Your task to perform on an android device: turn off airplane mode Image 0: 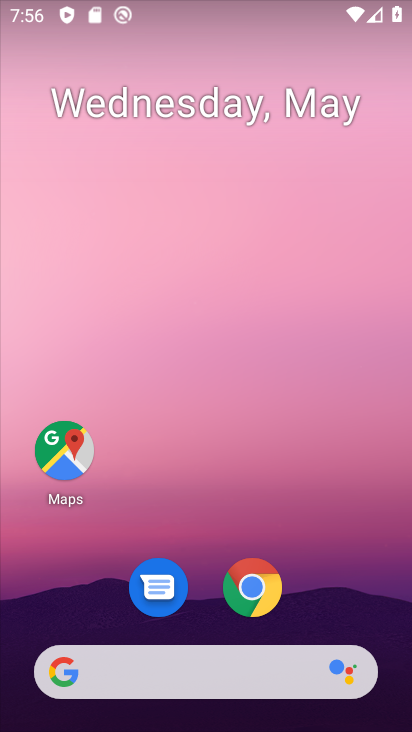
Step 0: drag from (201, 706) to (140, 51)
Your task to perform on an android device: turn off airplane mode Image 1: 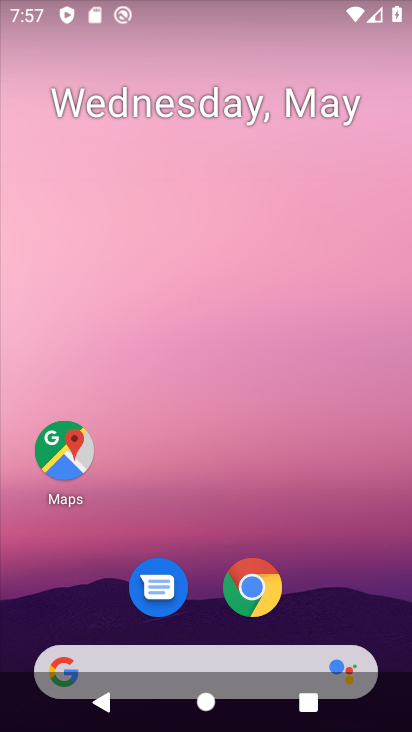
Step 1: drag from (227, 576) to (173, 0)
Your task to perform on an android device: turn off airplane mode Image 2: 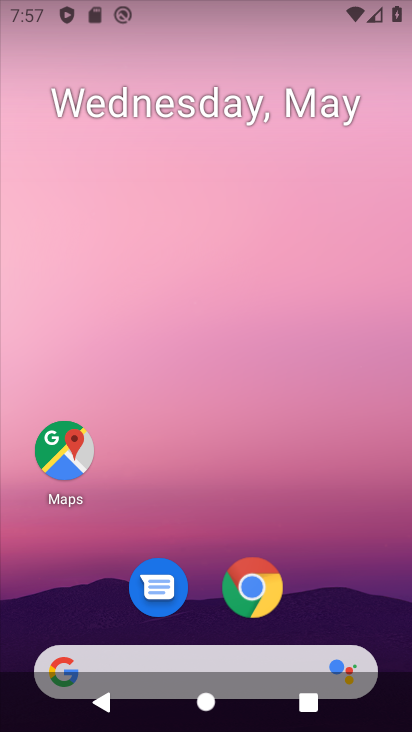
Step 2: drag from (255, 616) to (297, 50)
Your task to perform on an android device: turn off airplane mode Image 3: 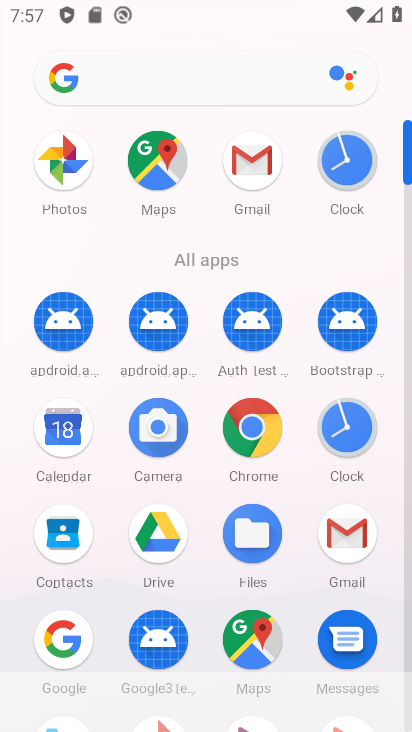
Step 3: drag from (286, 515) to (295, 129)
Your task to perform on an android device: turn off airplane mode Image 4: 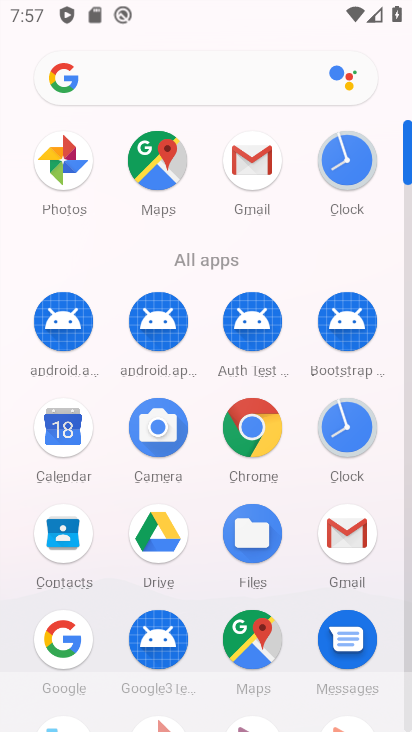
Step 4: drag from (313, 579) to (293, 88)
Your task to perform on an android device: turn off airplane mode Image 5: 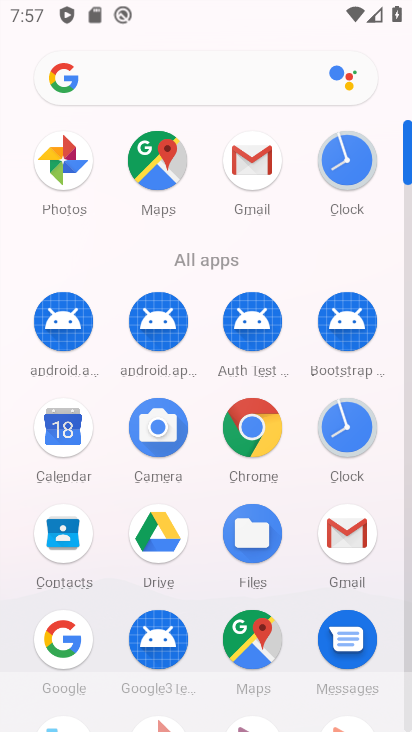
Step 5: drag from (297, 390) to (273, 136)
Your task to perform on an android device: turn off airplane mode Image 6: 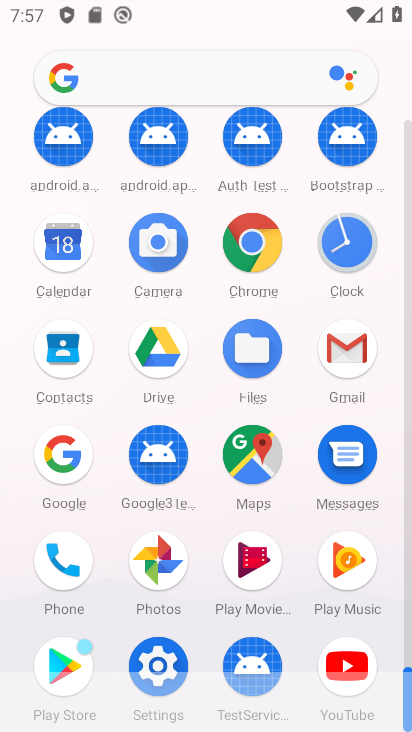
Step 6: drag from (290, 418) to (234, 111)
Your task to perform on an android device: turn off airplane mode Image 7: 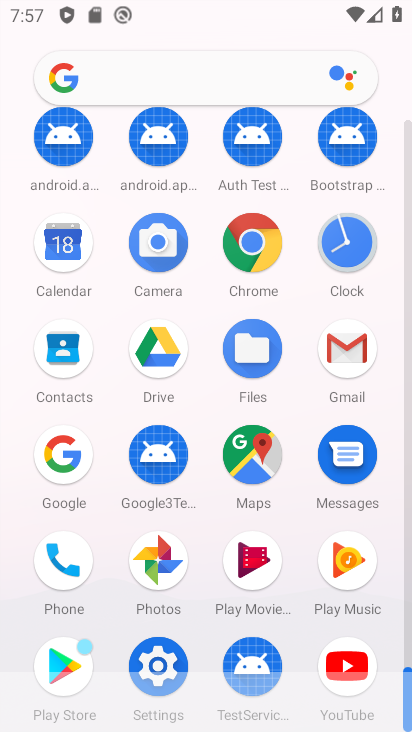
Step 7: click (160, 668)
Your task to perform on an android device: turn off airplane mode Image 8: 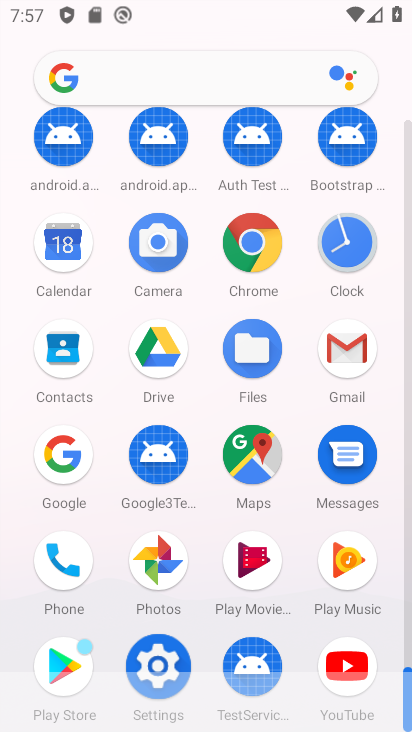
Step 8: click (159, 667)
Your task to perform on an android device: turn off airplane mode Image 9: 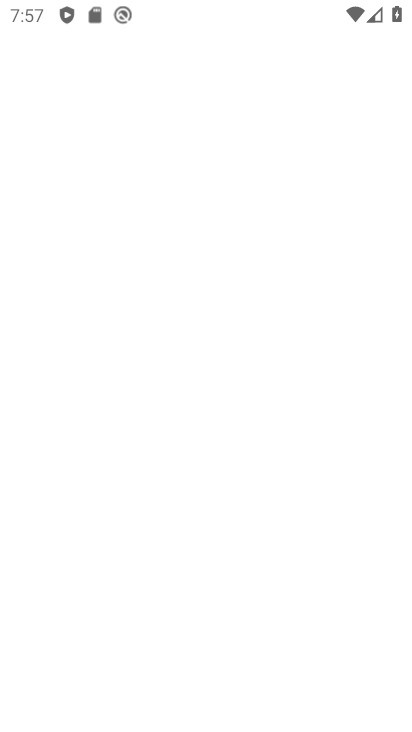
Step 9: click (163, 660)
Your task to perform on an android device: turn off airplane mode Image 10: 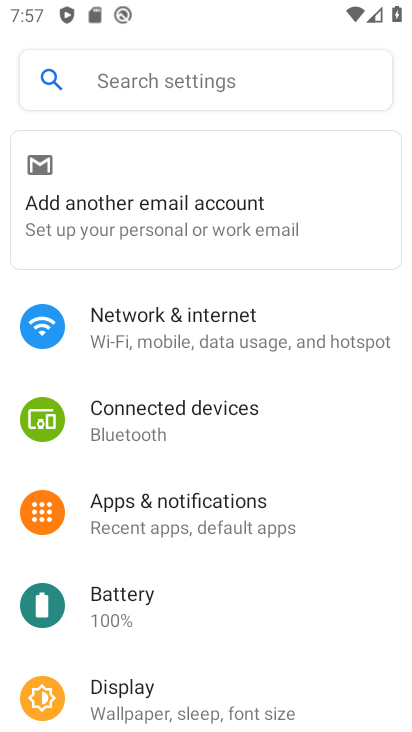
Step 10: click (188, 334)
Your task to perform on an android device: turn off airplane mode Image 11: 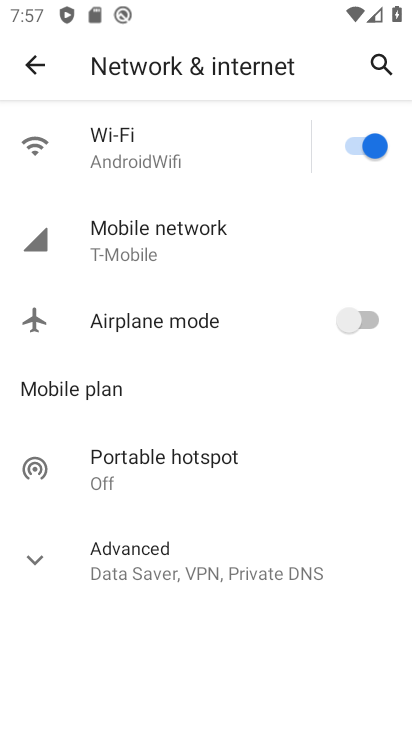
Step 11: task complete